Your task to perform on an android device: Show me the alarms in the clock app Image 0: 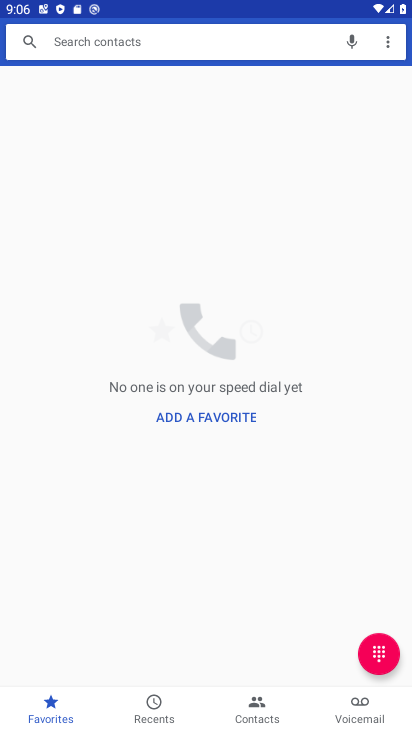
Step 0: press home button
Your task to perform on an android device: Show me the alarms in the clock app Image 1: 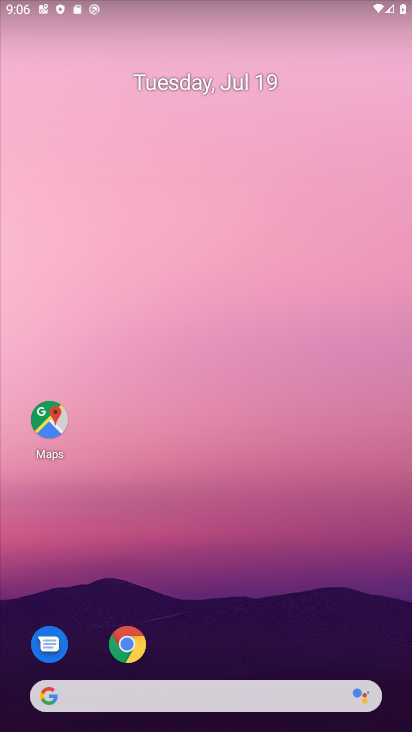
Step 1: drag from (201, 662) to (203, 118)
Your task to perform on an android device: Show me the alarms in the clock app Image 2: 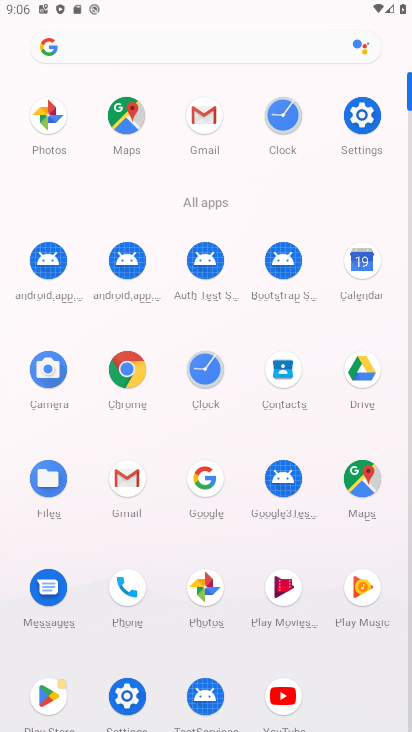
Step 2: click (206, 356)
Your task to perform on an android device: Show me the alarms in the clock app Image 3: 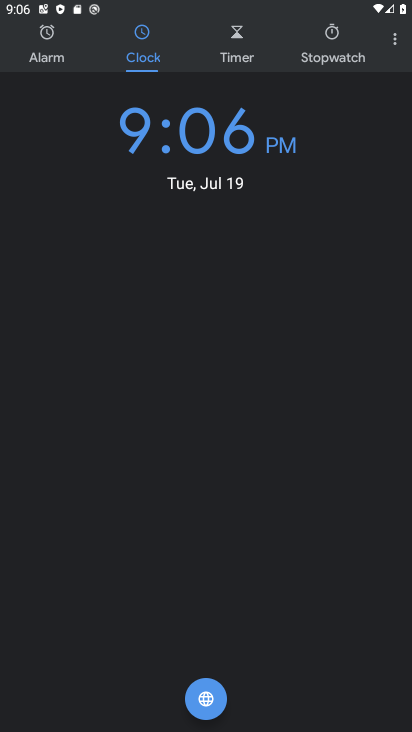
Step 3: click (60, 56)
Your task to perform on an android device: Show me the alarms in the clock app Image 4: 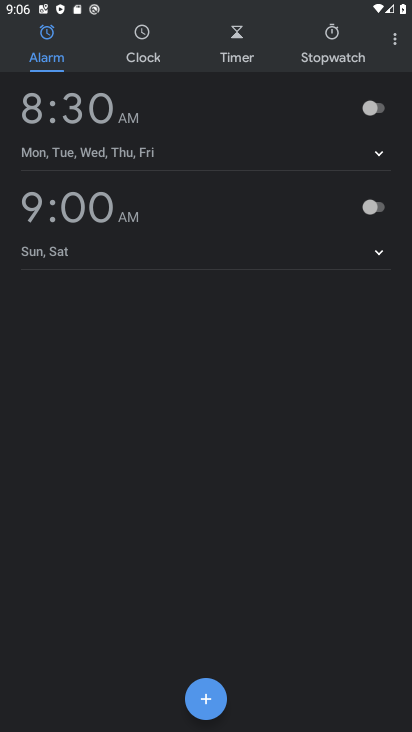
Step 4: task complete